Your task to perform on an android device: see sites visited before in the chrome app Image 0: 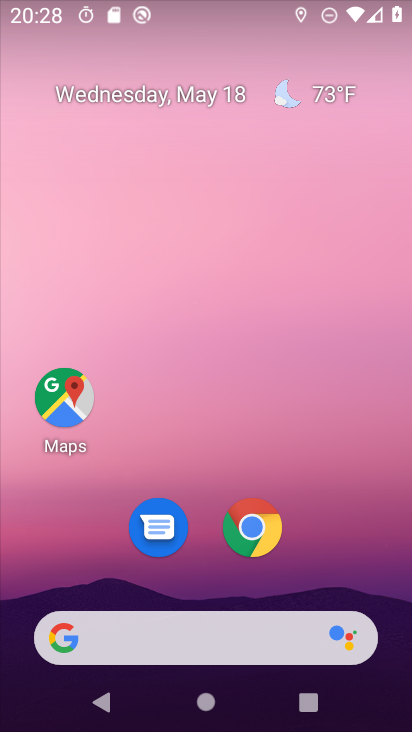
Step 0: click (241, 532)
Your task to perform on an android device: see sites visited before in the chrome app Image 1: 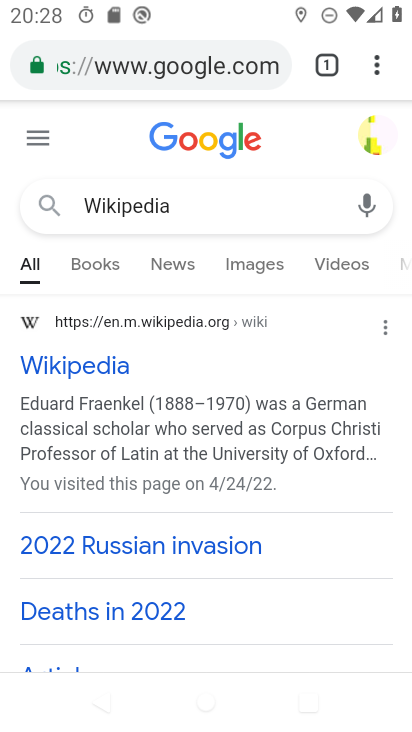
Step 1: click (374, 63)
Your task to perform on an android device: see sites visited before in the chrome app Image 2: 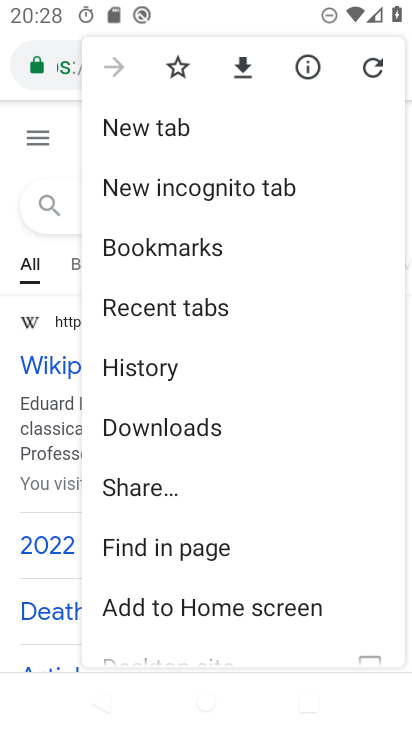
Step 2: click (155, 308)
Your task to perform on an android device: see sites visited before in the chrome app Image 3: 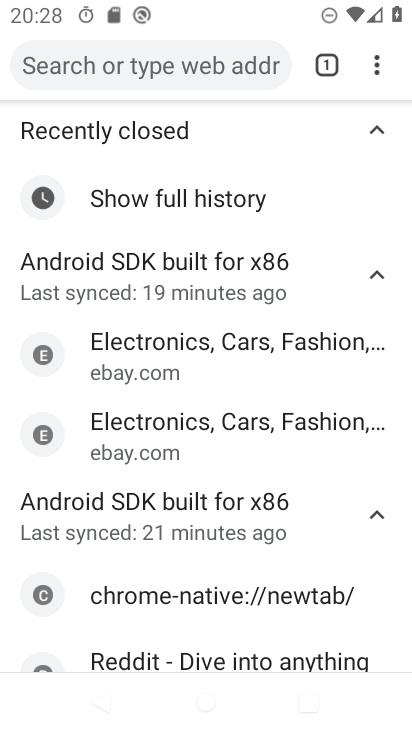
Step 3: task complete